Your task to perform on an android device: Show me popular videos on Youtube Image 0: 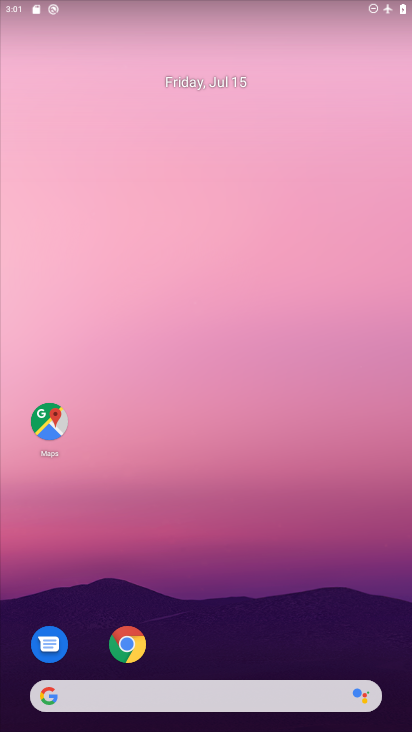
Step 0: press home button
Your task to perform on an android device: Show me popular videos on Youtube Image 1: 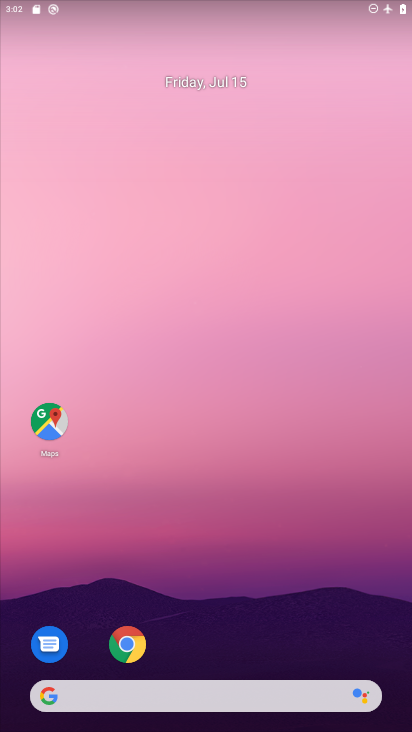
Step 1: drag from (65, 505) to (256, 163)
Your task to perform on an android device: Show me popular videos on Youtube Image 2: 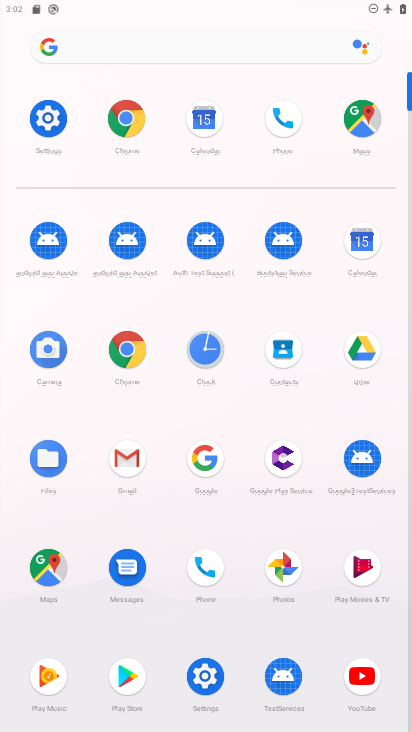
Step 2: click (360, 667)
Your task to perform on an android device: Show me popular videos on Youtube Image 3: 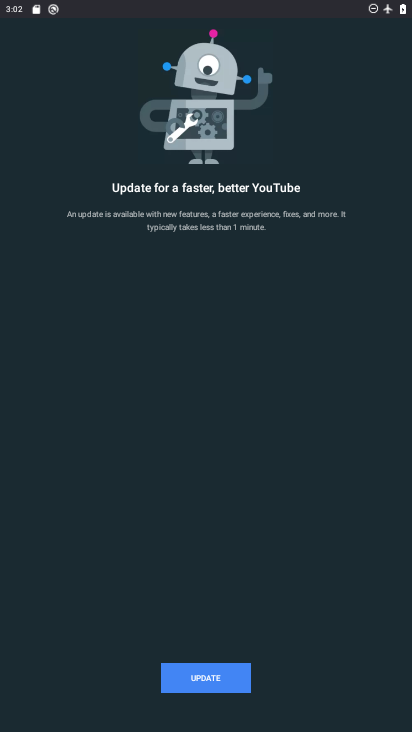
Step 3: task complete